Your task to perform on an android device: turn notification dots on Image 0: 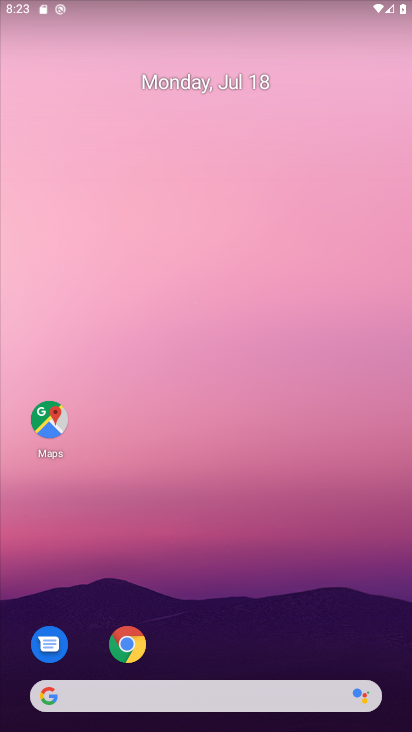
Step 0: drag from (246, 656) to (241, 138)
Your task to perform on an android device: turn notification dots on Image 1: 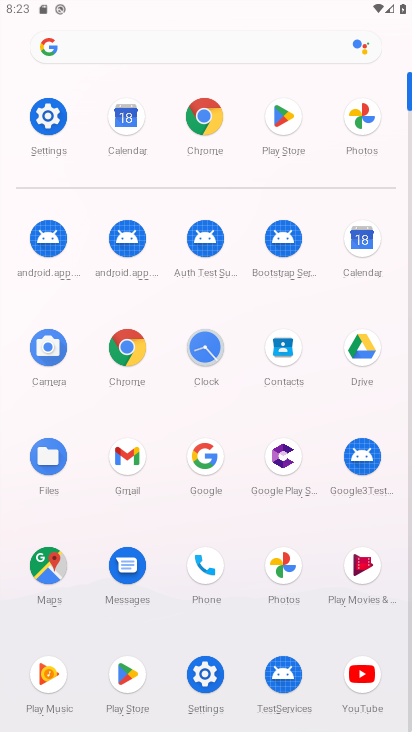
Step 1: click (210, 702)
Your task to perform on an android device: turn notification dots on Image 2: 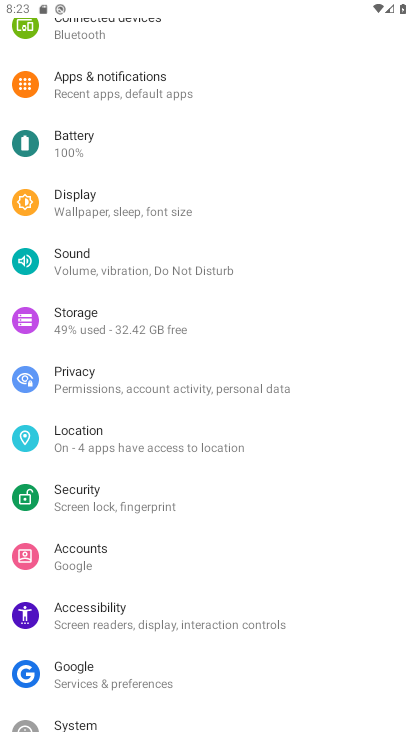
Step 2: click (172, 78)
Your task to perform on an android device: turn notification dots on Image 3: 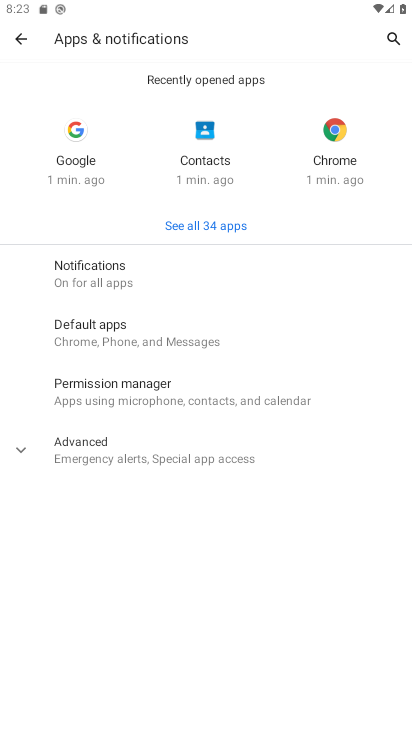
Step 3: click (143, 282)
Your task to perform on an android device: turn notification dots on Image 4: 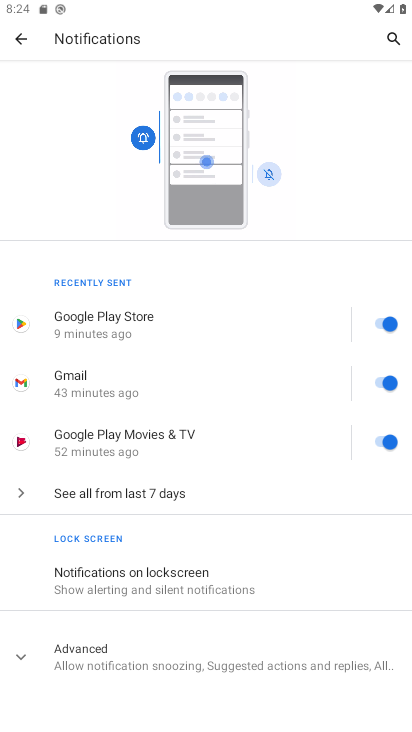
Step 4: click (163, 653)
Your task to perform on an android device: turn notification dots on Image 5: 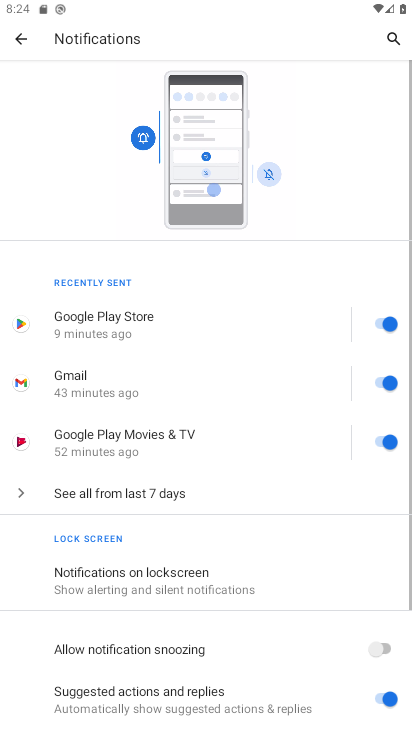
Step 5: task complete